Your task to perform on an android device: open a bookmark in the chrome app Image 0: 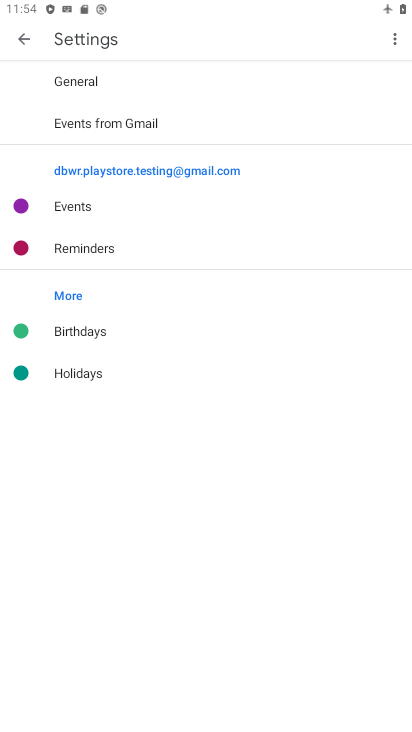
Step 0: press home button
Your task to perform on an android device: open a bookmark in the chrome app Image 1: 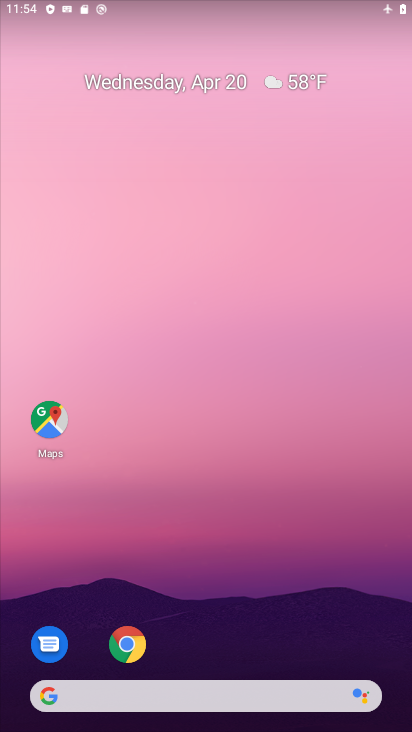
Step 1: click (126, 642)
Your task to perform on an android device: open a bookmark in the chrome app Image 2: 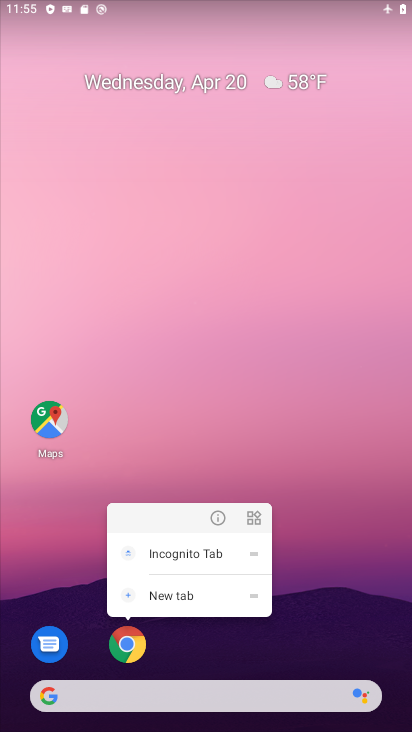
Step 2: click (209, 523)
Your task to perform on an android device: open a bookmark in the chrome app Image 3: 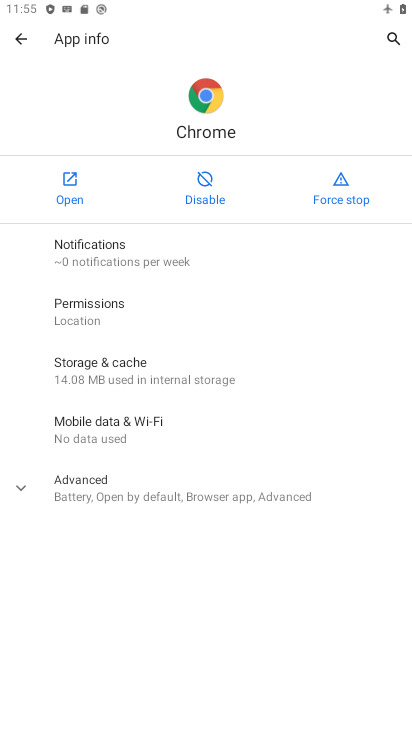
Step 3: click (46, 187)
Your task to perform on an android device: open a bookmark in the chrome app Image 4: 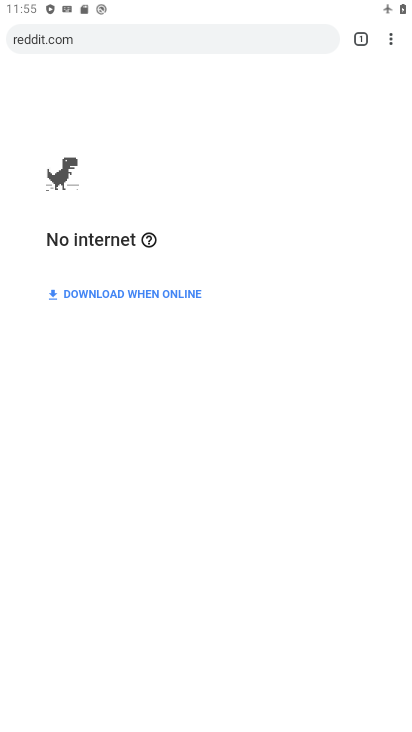
Step 4: task complete